Your task to perform on an android device: turn vacation reply on in the gmail app Image 0: 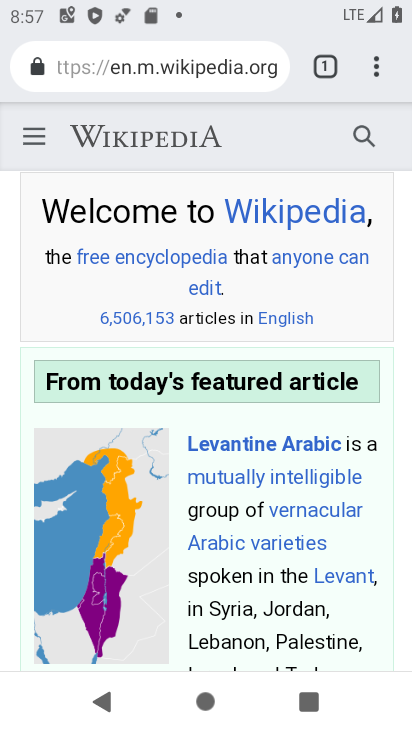
Step 0: press home button
Your task to perform on an android device: turn vacation reply on in the gmail app Image 1: 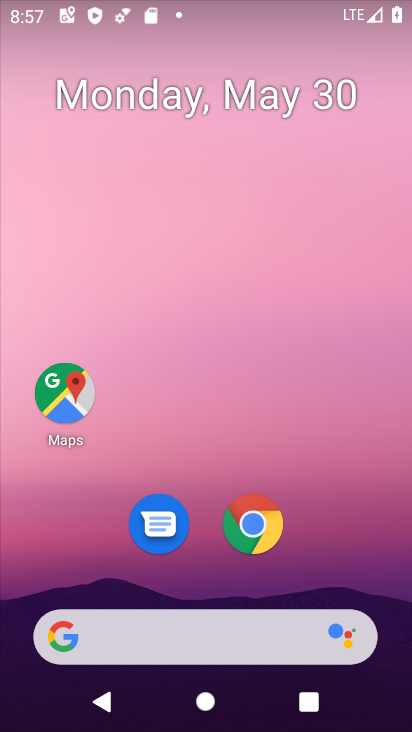
Step 1: drag from (300, 570) to (295, 24)
Your task to perform on an android device: turn vacation reply on in the gmail app Image 2: 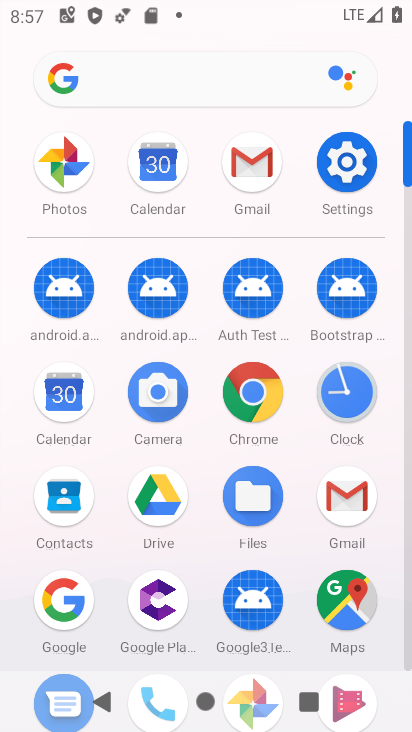
Step 2: click (258, 160)
Your task to perform on an android device: turn vacation reply on in the gmail app Image 3: 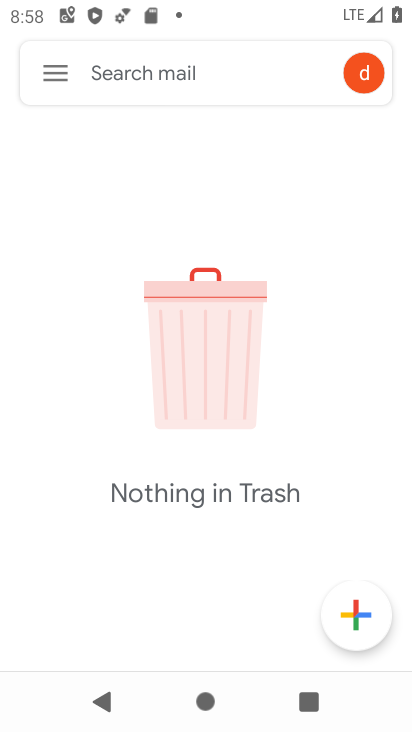
Step 3: click (56, 72)
Your task to perform on an android device: turn vacation reply on in the gmail app Image 4: 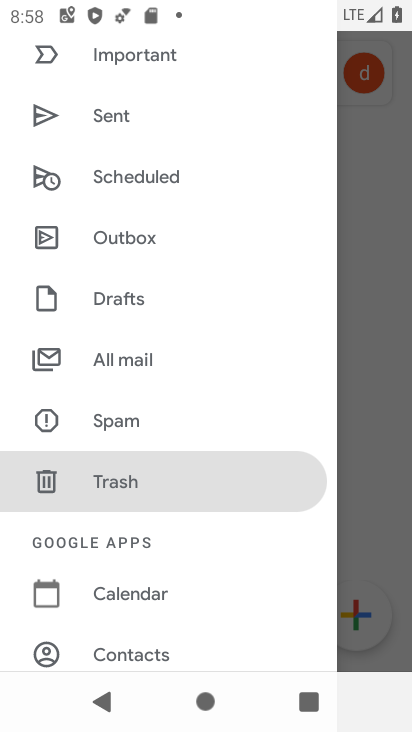
Step 4: drag from (174, 363) to (189, 144)
Your task to perform on an android device: turn vacation reply on in the gmail app Image 5: 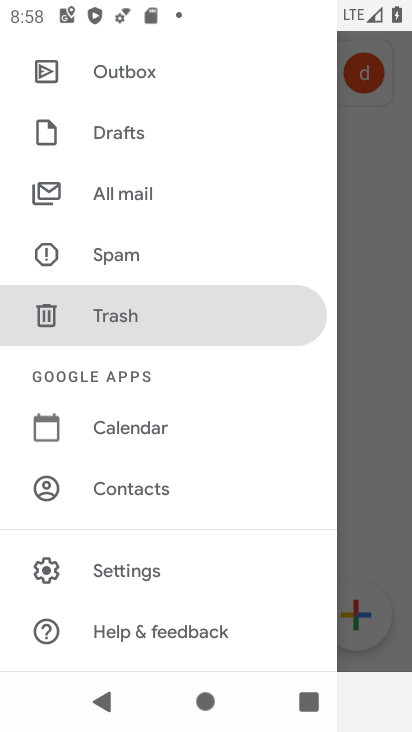
Step 5: click (173, 570)
Your task to perform on an android device: turn vacation reply on in the gmail app Image 6: 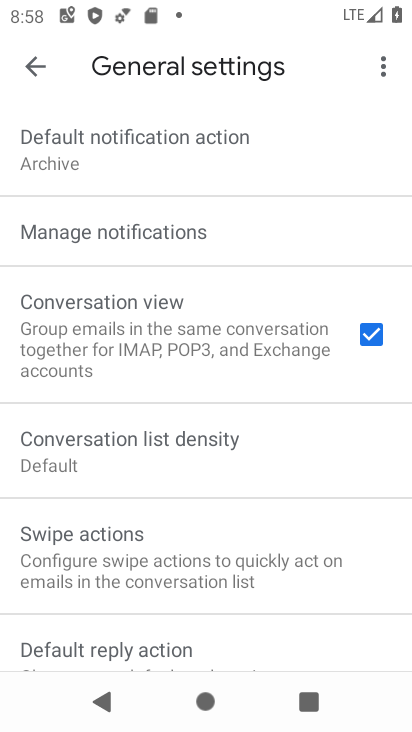
Step 6: drag from (294, 373) to (312, 47)
Your task to perform on an android device: turn vacation reply on in the gmail app Image 7: 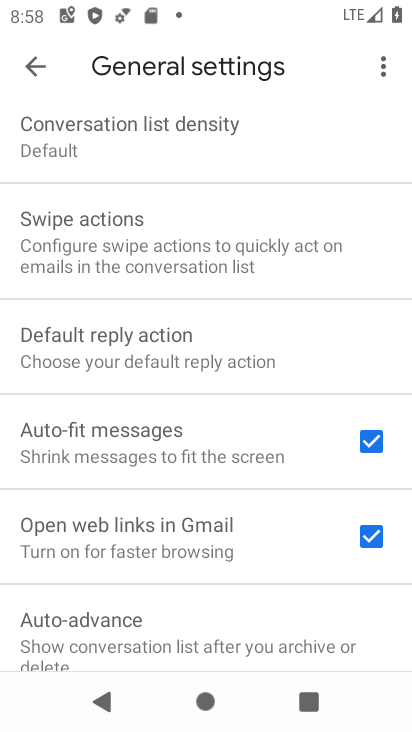
Step 7: drag from (200, 456) to (217, 167)
Your task to perform on an android device: turn vacation reply on in the gmail app Image 8: 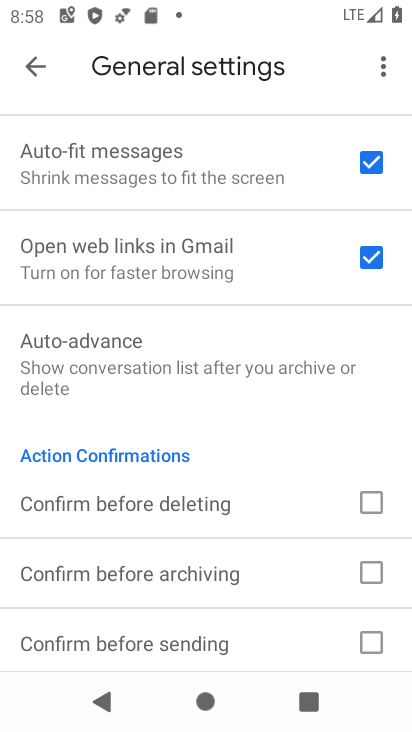
Step 8: click (27, 57)
Your task to perform on an android device: turn vacation reply on in the gmail app Image 9: 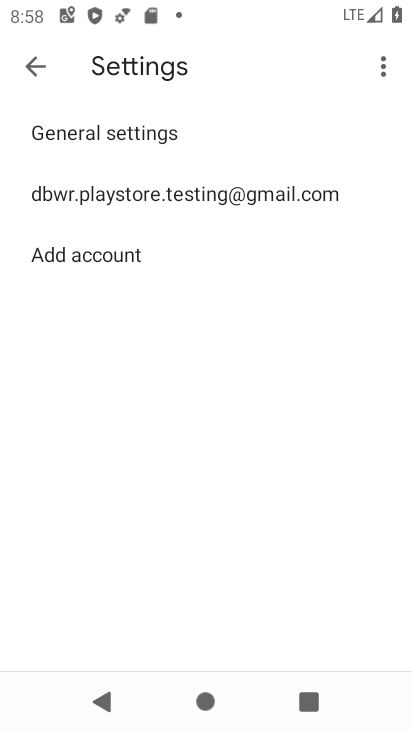
Step 9: click (171, 196)
Your task to perform on an android device: turn vacation reply on in the gmail app Image 10: 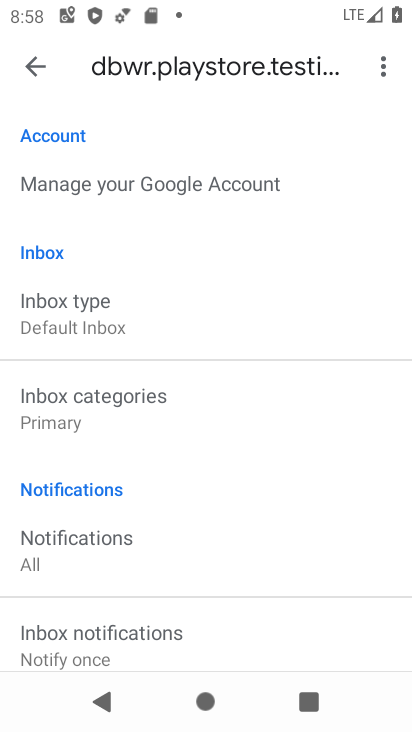
Step 10: drag from (244, 531) to (242, 393)
Your task to perform on an android device: turn vacation reply on in the gmail app Image 11: 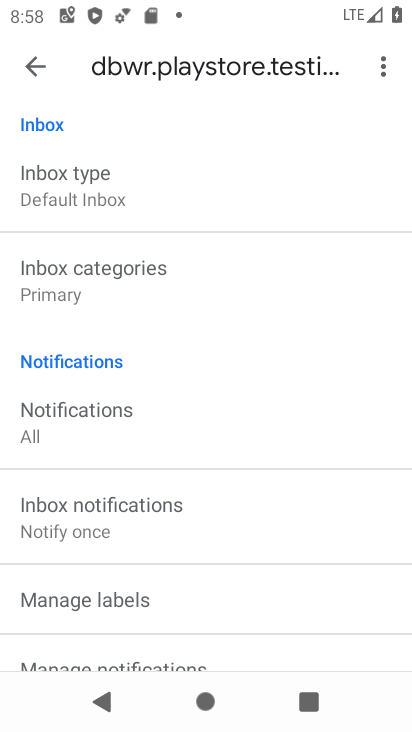
Step 11: drag from (247, 368) to (256, 140)
Your task to perform on an android device: turn vacation reply on in the gmail app Image 12: 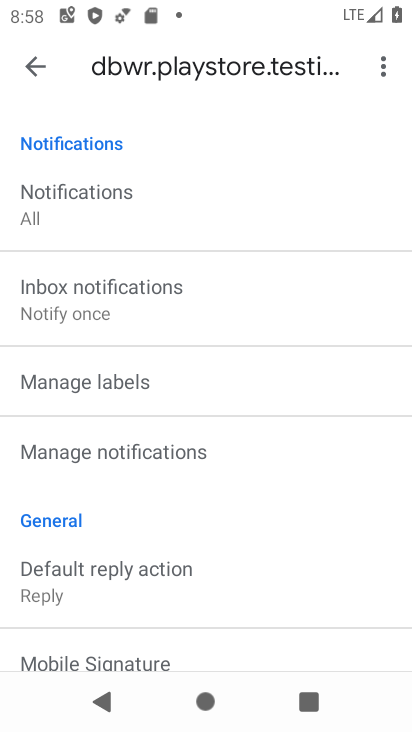
Step 12: drag from (247, 572) to (268, 64)
Your task to perform on an android device: turn vacation reply on in the gmail app Image 13: 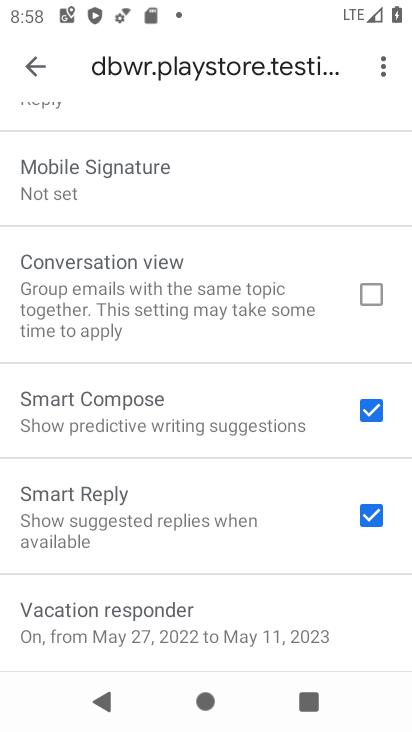
Step 13: click (294, 628)
Your task to perform on an android device: turn vacation reply on in the gmail app Image 14: 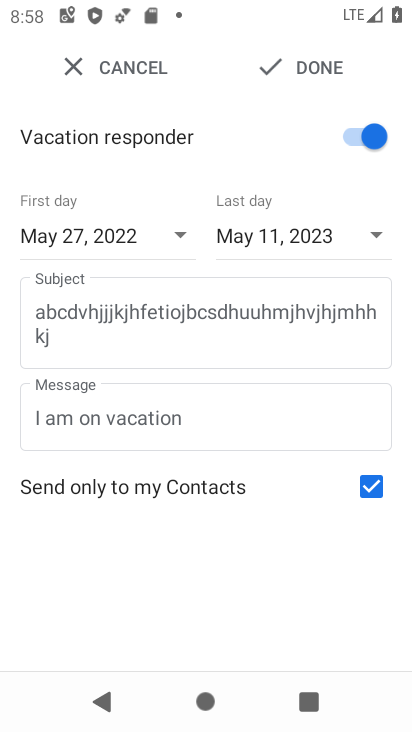
Step 14: task complete